Your task to perform on an android device: Go to sound settings Image 0: 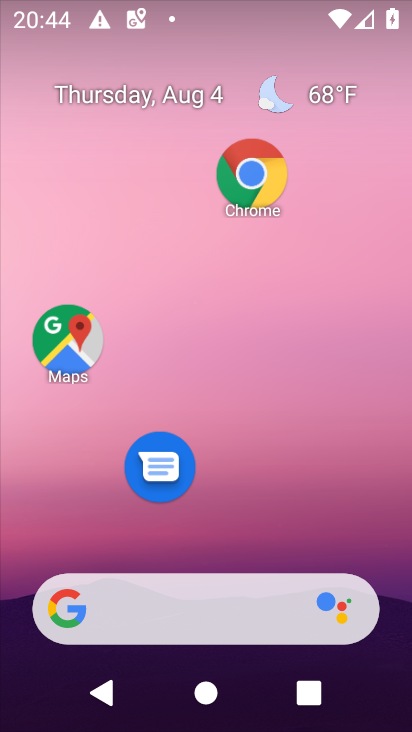
Step 0: drag from (367, 540) to (327, 50)
Your task to perform on an android device: Go to sound settings Image 1: 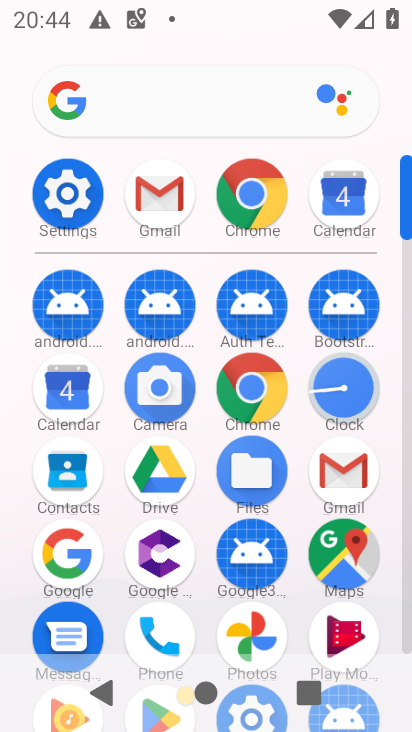
Step 1: click (79, 211)
Your task to perform on an android device: Go to sound settings Image 2: 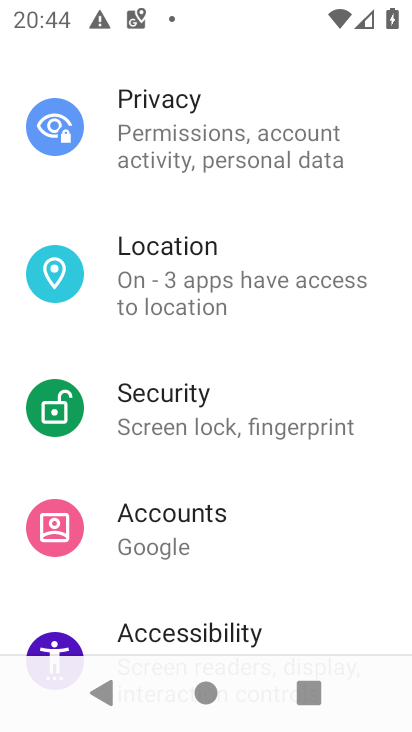
Step 2: drag from (240, 493) to (252, 247)
Your task to perform on an android device: Go to sound settings Image 3: 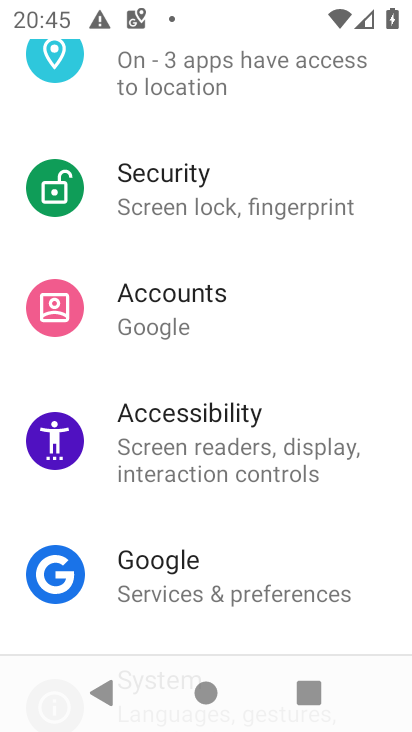
Step 3: drag from (80, 187) to (180, 707)
Your task to perform on an android device: Go to sound settings Image 4: 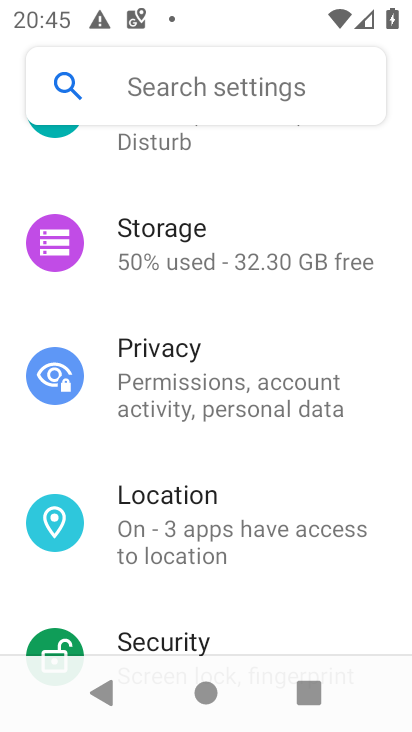
Step 4: drag from (168, 253) to (177, 702)
Your task to perform on an android device: Go to sound settings Image 5: 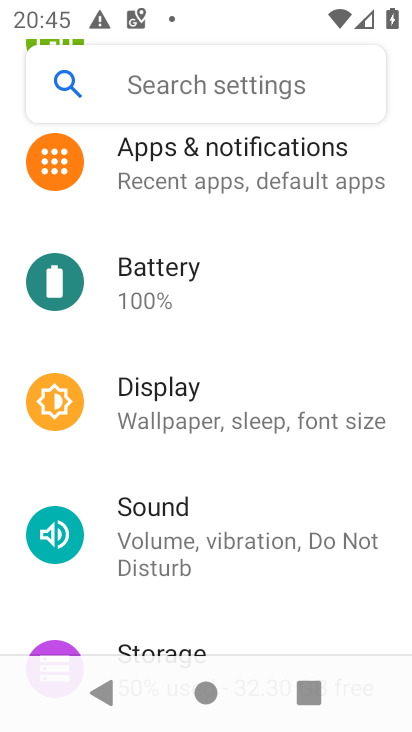
Step 5: click (156, 570)
Your task to perform on an android device: Go to sound settings Image 6: 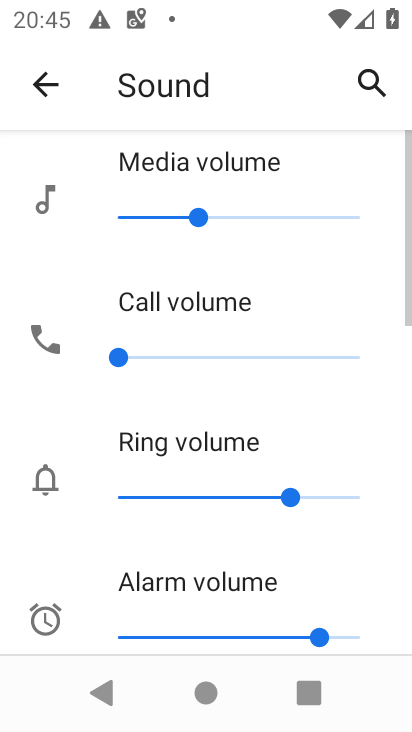
Step 6: task complete